Your task to perform on an android device: Open Google Maps and go to "Timeline" Image 0: 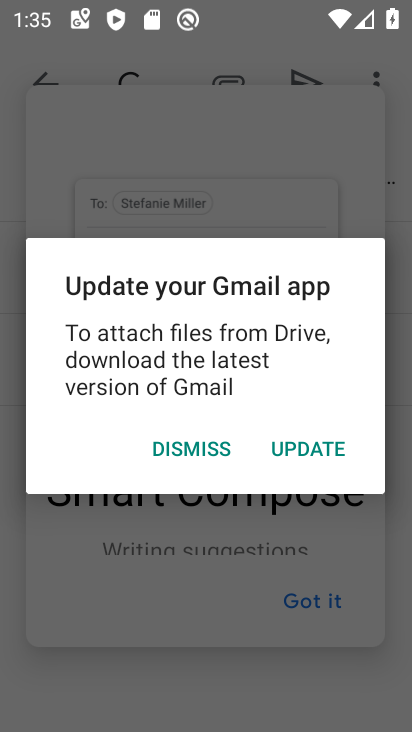
Step 0: press home button
Your task to perform on an android device: Open Google Maps and go to "Timeline" Image 1: 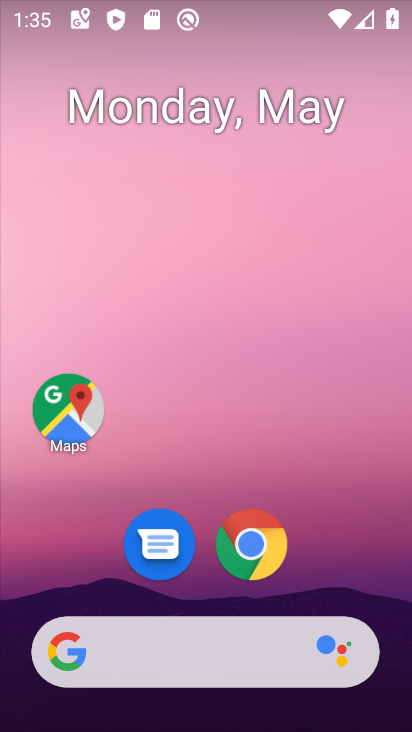
Step 1: drag from (375, 564) to (363, 207)
Your task to perform on an android device: Open Google Maps and go to "Timeline" Image 2: 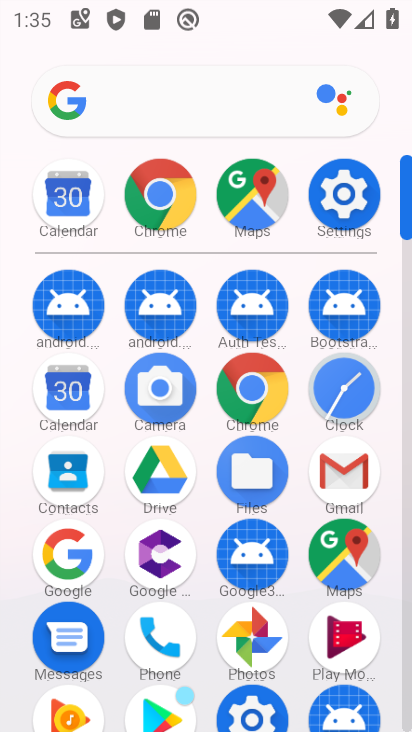
Step 2: click (360, 562)
Your task to perform on an android device: Open Google Maps and go to "Timeline" Image 3: 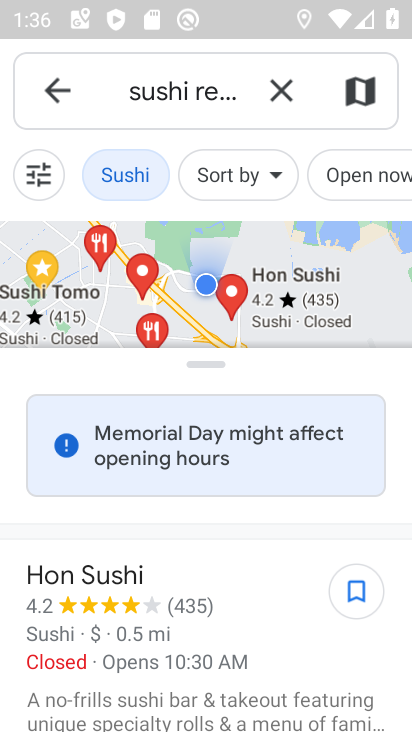
Step 3: click (62, 86)
Your task to perform on an android device: Open Google Maps and go to "Timeline" Image 4: 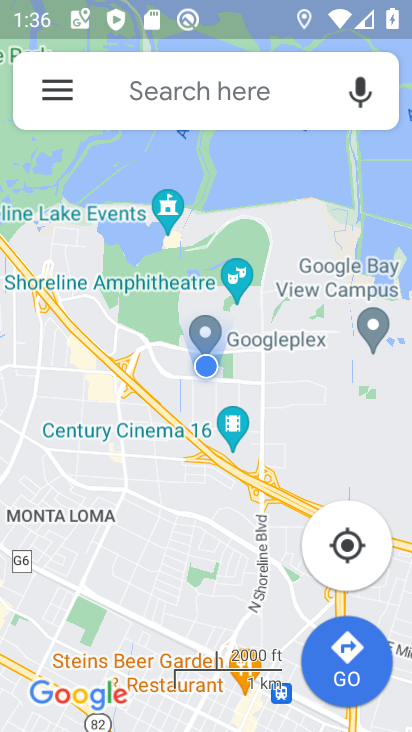
Step 4: click (62, 86)
Your task to perform on an android device: Open Google Maps and go to "Timeline" Image 5: 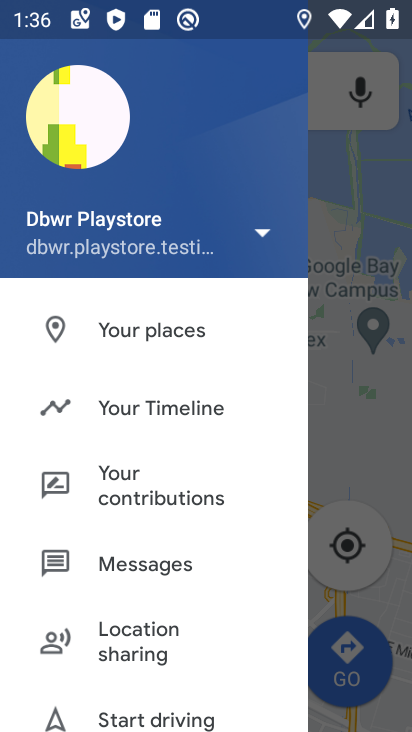
Step 5: click (178, 415)
Your task to perform on an android device: Open Google Maps and go to "Timeline" Image 6: 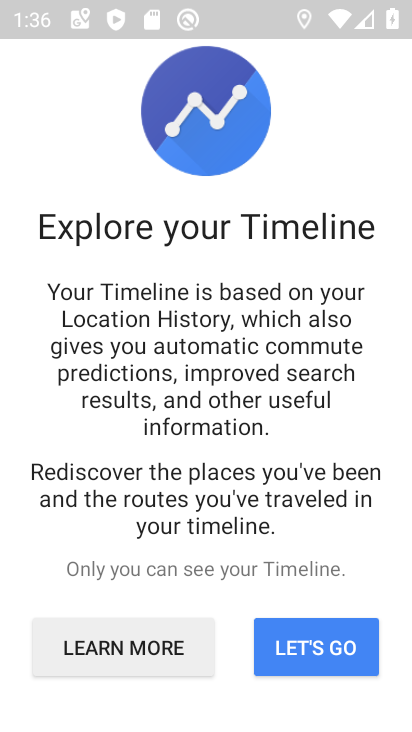
Step 6: task complete